Your task to perform on an android device: Find coffee shops on Maps Image 0: 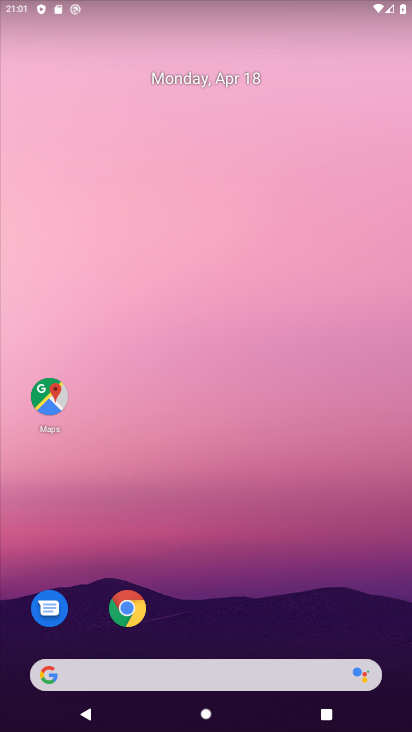
Step 0: drag from (207, 602) to (191, 181)
Your task to perform on an android device: Find coffee shops on Maps Image 1: 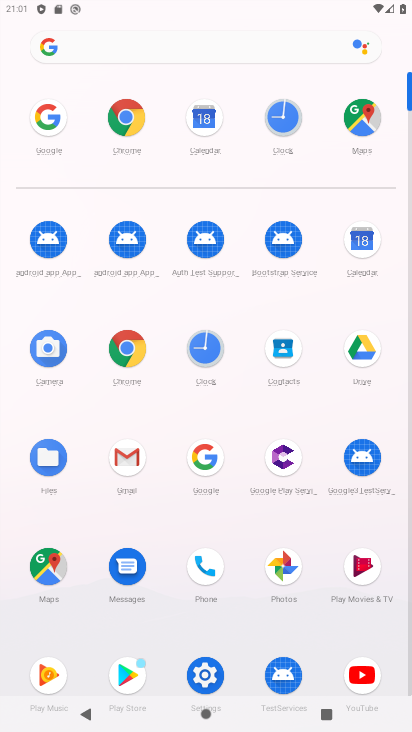
Step 1: click (366, 114)
Your task to perform on an android device: Find coffee shops on Maps Image 2: 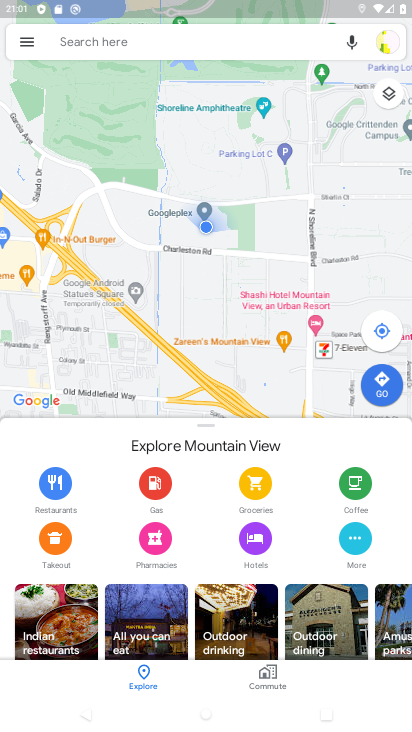
Step 2: click (130, 48)
Your task to perform on an android device: Find coffee shops on Maps Image 3: 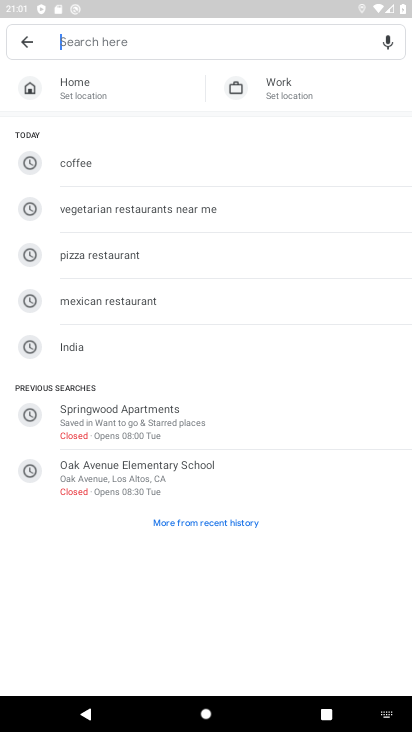
Step 3: click (94, 169)
Your task to perform on an android device: Find coffee shops on Maps Image 4: 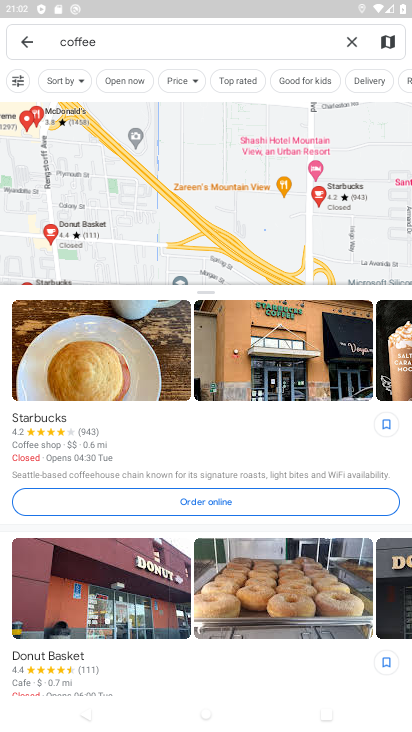
Step 4: task complete